Your task to perform on an android device: Open Android settings Image 0: 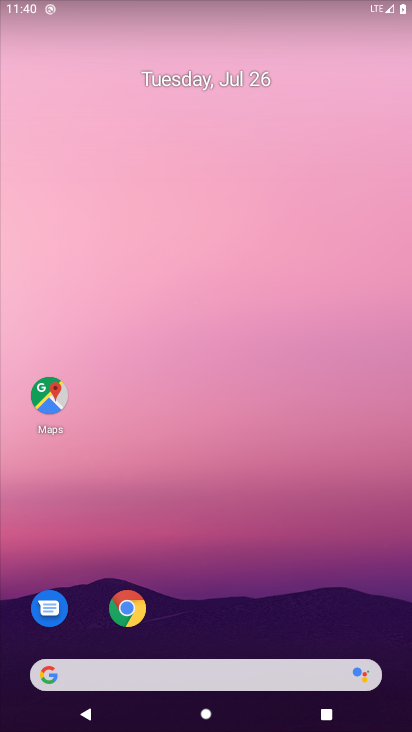
Step 0: press home button
Your task to perform on an android device: Open Android settings Image 1: 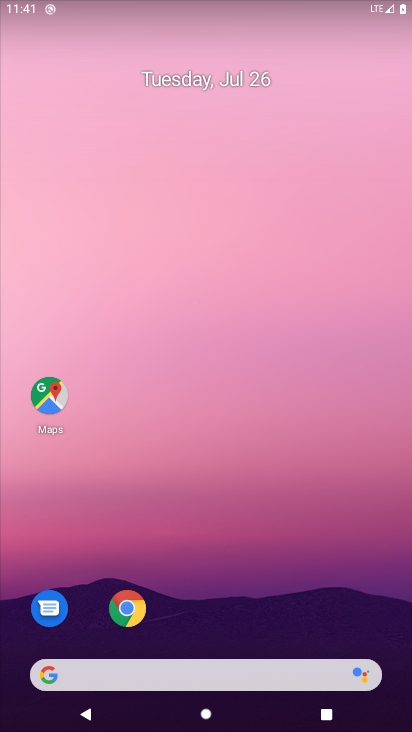
Step 1: drag from (253, 577) to (215, 99)
Your task to perform on an android device: Open Android settings Image 2: 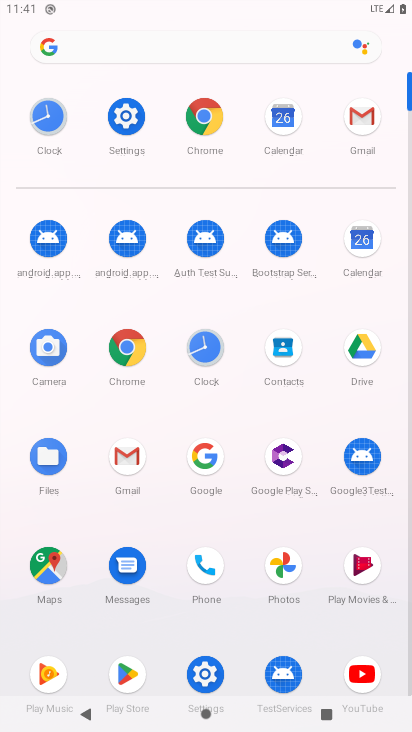
Step 2: click (114, 110)
Your task to perform on an android device: Open Android settings Image 3: 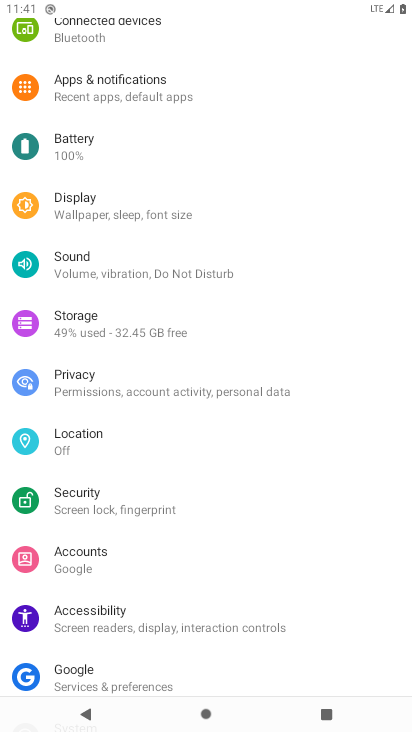
Step 3: task complete